Your task to perform on an android device: turn notification dots on Image 0: 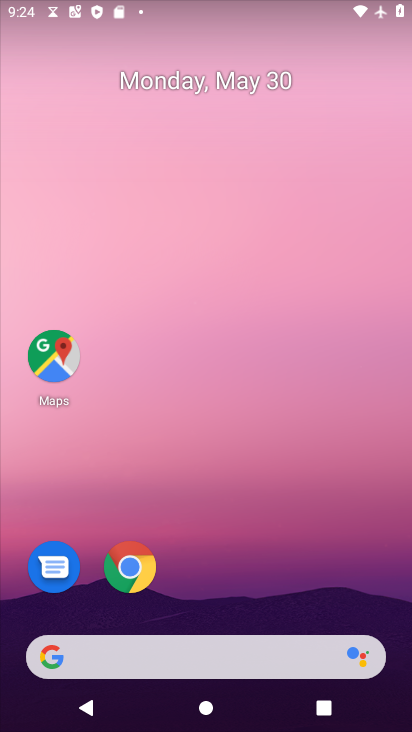
Step 0: drag from (241, 589) to (256, 249)
Your task to perform on an android device: turn notification dots on Image 1: 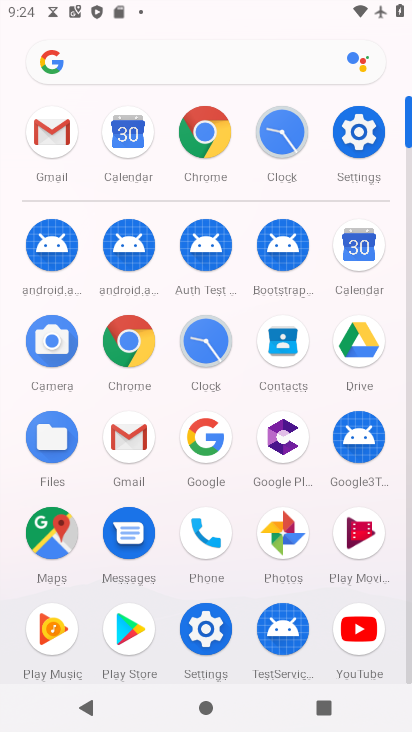
Step 1: click (364, 135)
Your task to perform on an android device: turn notification dots on Image 2: 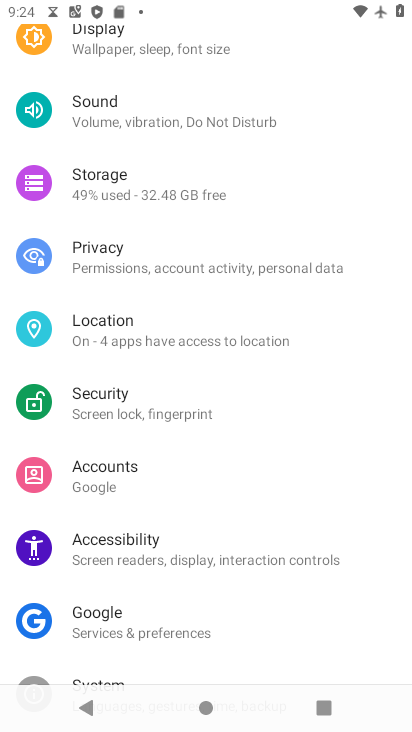
Step 2: drag from (181, 129) to (212, 607)
Your task to perform on an android device: turn notification dots on Image 3: 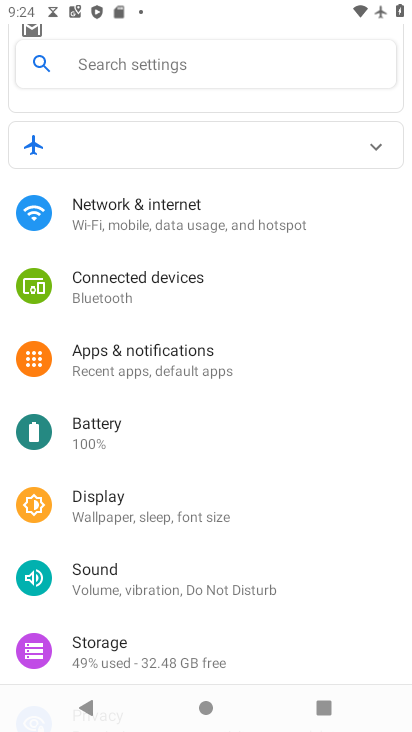
Step 3: click (195, 372)
Your task to perform on an android device: turn notification dots on Image 4: 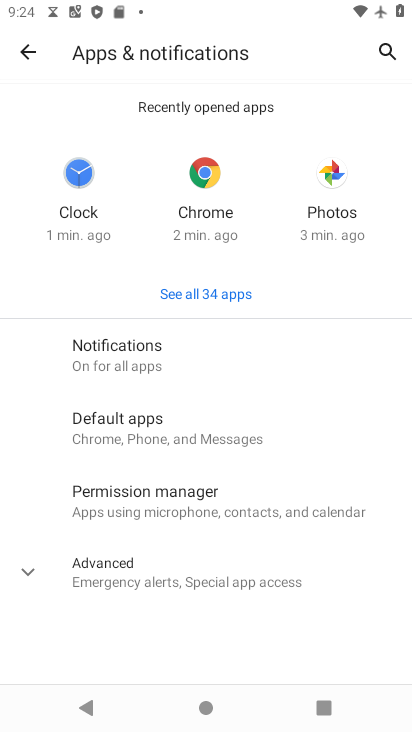
Step 4: click (192, 366)
Your task to perform on an android device: turn notification dots on Image 5: 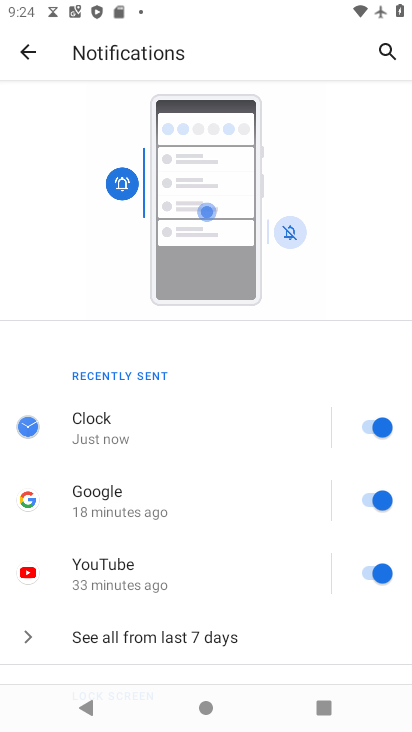
Step 5: drag from (264, 504) to (200, 105)
Your task to perform on an android device: turn notification dots on Image 6: 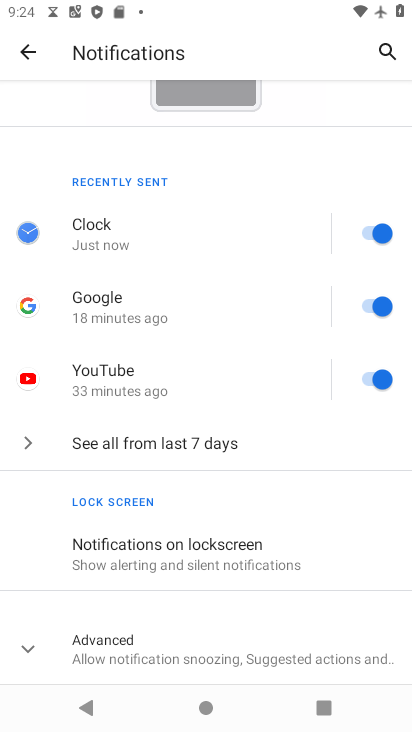
Step 6: click (269, 663)
Your task to perform on an android device: turn notification dots on Image 7: 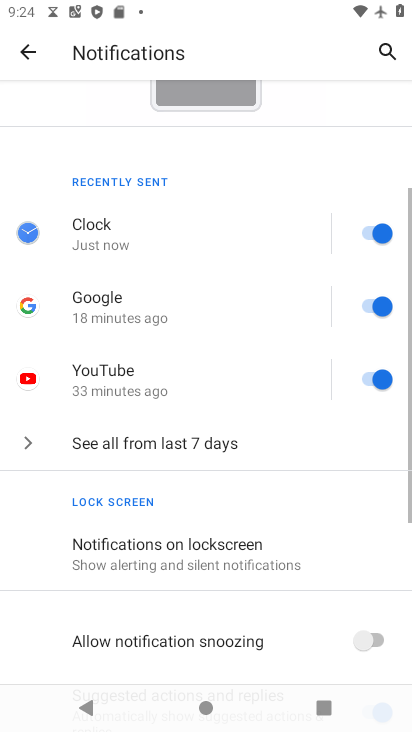
Step 7: drag from (269, 663) to (207, 314)
Your task to perform on an android device: turn notification dots on Image 8: 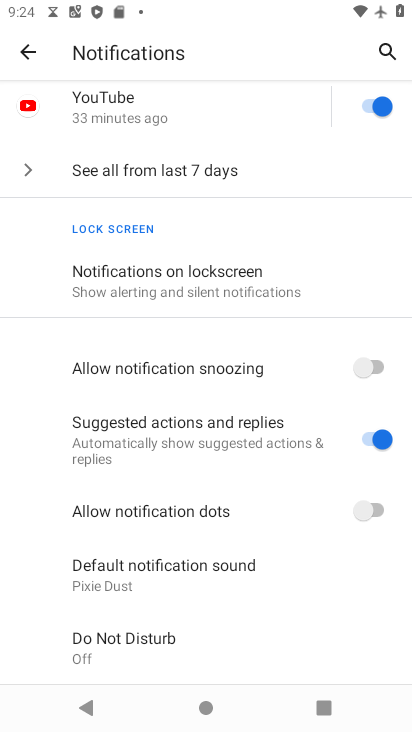
Step 8: click (381, 522)
Your task to perform on an android device: turn notification dots on Image 9: 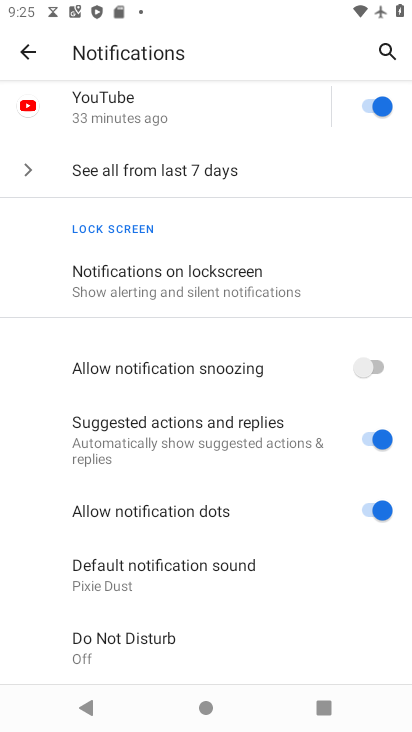
Step 9: task complete